Your task to perform on an android device: Open sound settings Image 0: 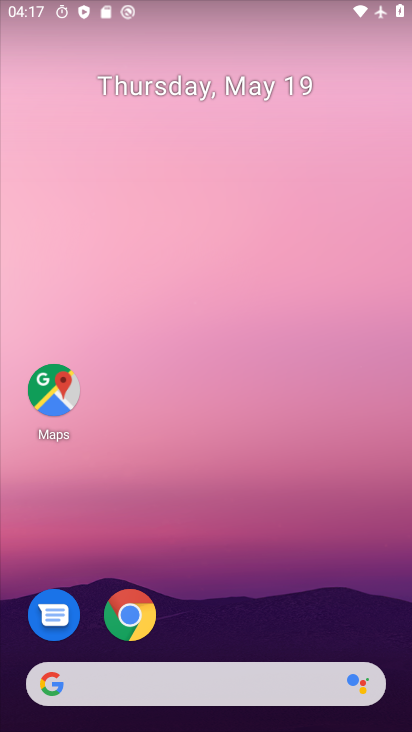
Step 0: drag from (236, 629) to (169, 5)
Your task to perform on an android device: Open sound settings Image 1: 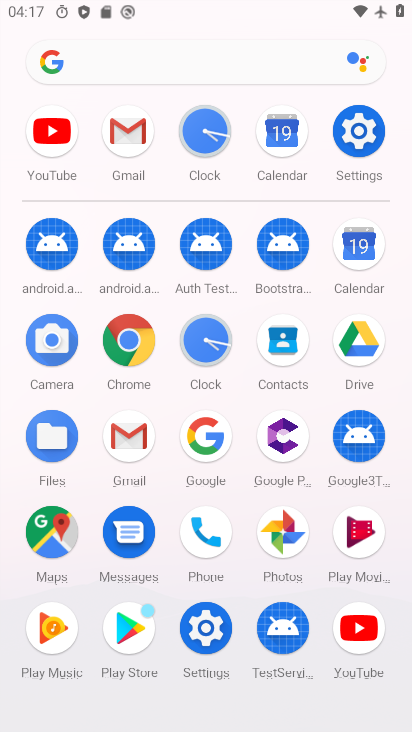
Step 1: click (341, 128)
Your task to perform on an android device: Open sound settings Image 2: 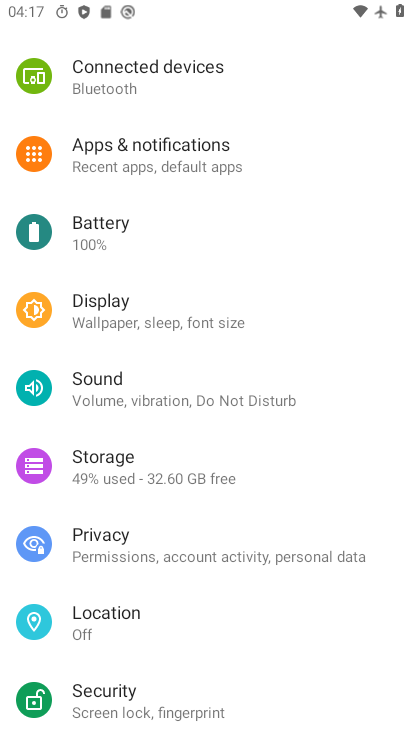
Step 2: click (101, 382)
Your task to perform on an android device: Open sound settings Image 3: 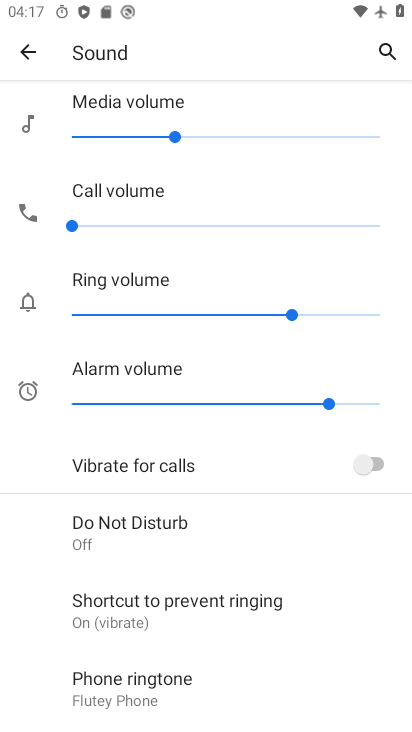
Step 3: task complete